Your task to perform on an android device: search for starred emails in the gmail app Image 0: 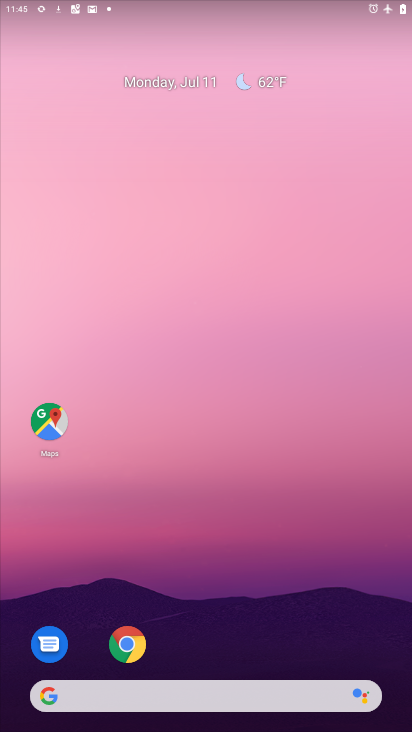
Step 0: drag from (222, 673) to (166, 30)
Your task to perform on an android device: search for starred emails in the gmail app Image 1: 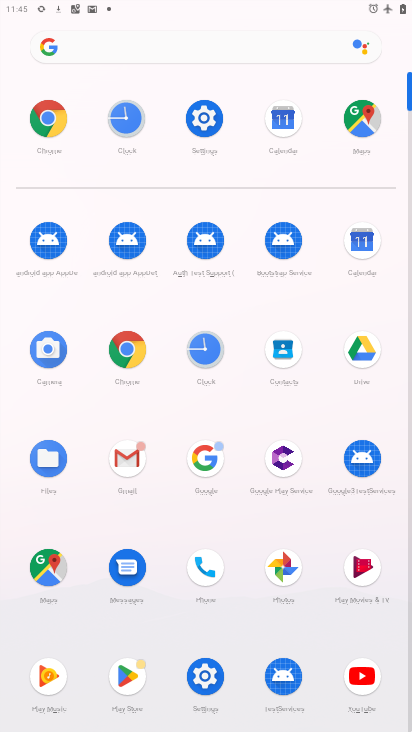
Step 1: click (123, 476)
Your task to perform on an android device: search for starred emails in the gmail app Image 2: 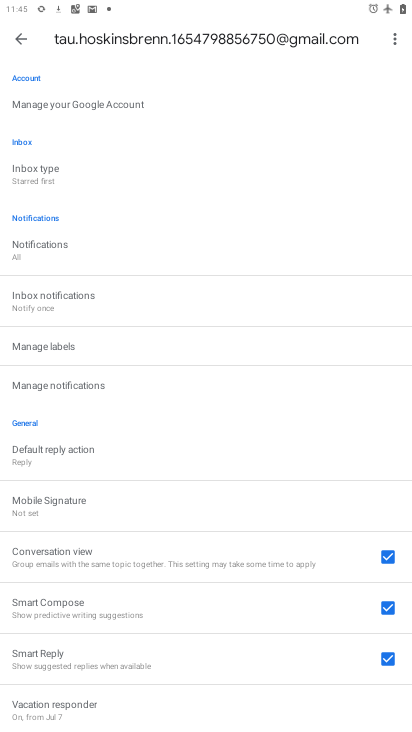
Step 2: click (21, 42)
Your task to perform on an android device: search for starred emails in the gmail app Image 3: 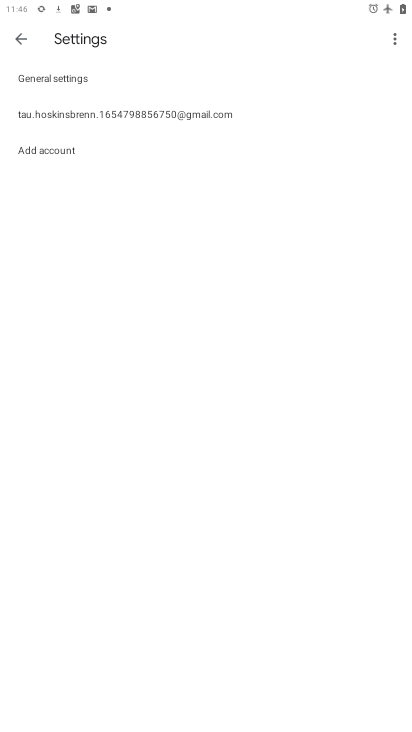
Step 3: click (15, 36)
Your task to perform on an android device: search for starred emails in the gmail app Image 4: 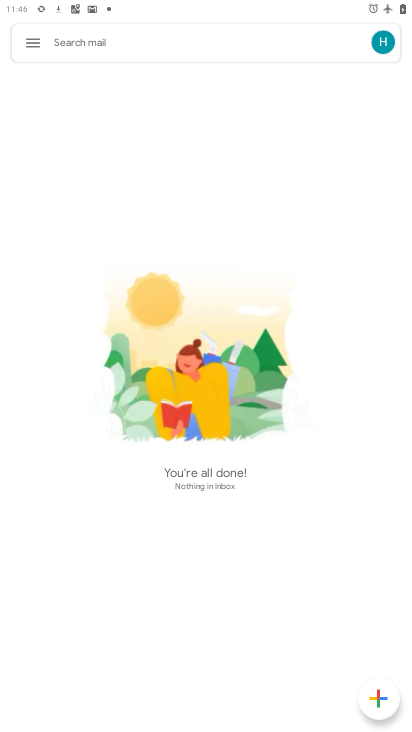
Step 4: click (25, 37)
Your task to perform on an android device: search for starred emails in the gmail app Image 5: 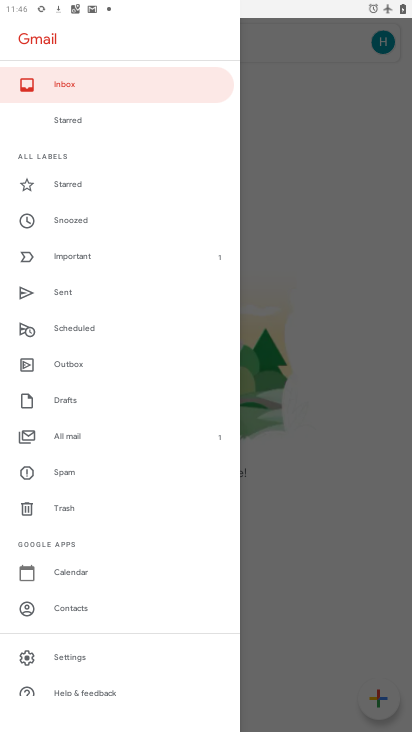
Step 5: click (67, 197)
Your task to perform on an android device: search for starred emails in the gmail app Image 6: 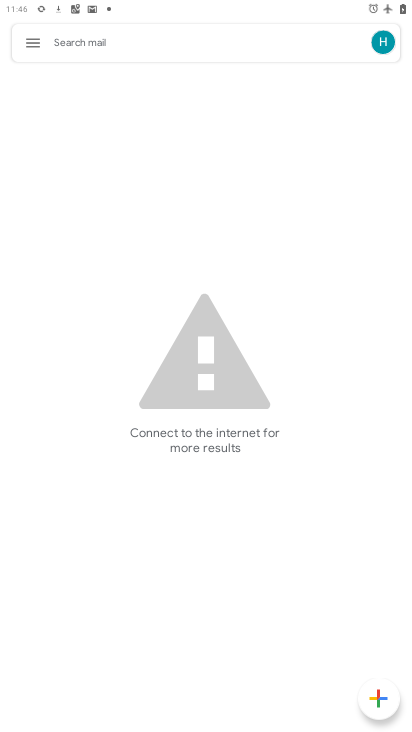
Step 6: task complete